Your task to perform on an android device: change the clock display to analog Image 0: 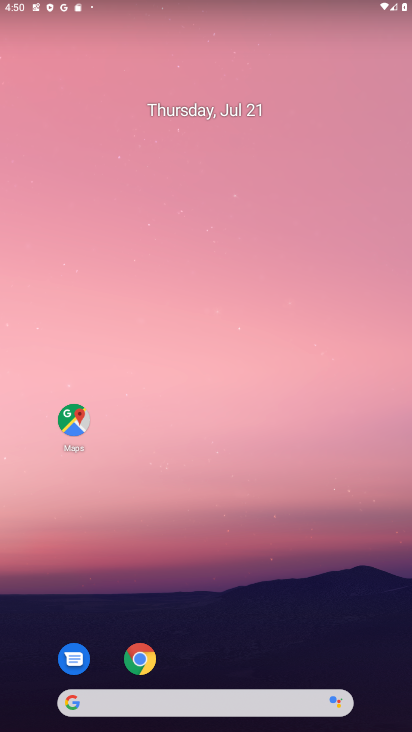
Step 0: drag from (239, 576) to (243, 171)
Your task to perform on an android device: change the clock display to analog Image 1: 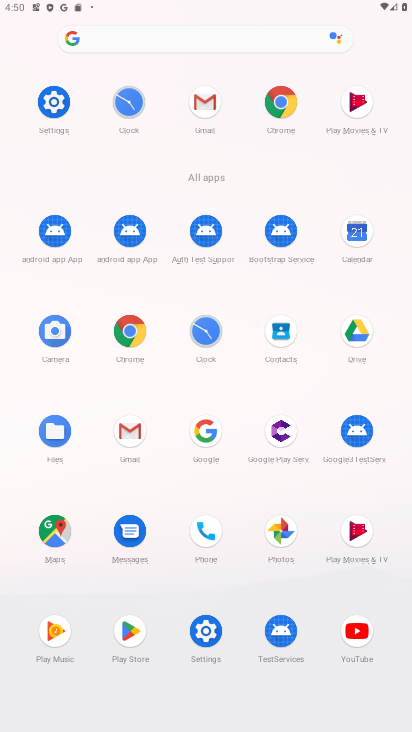
Step 1: click (129, 98)
Your task to perform on an android device: change the clock display to analog Image 2: 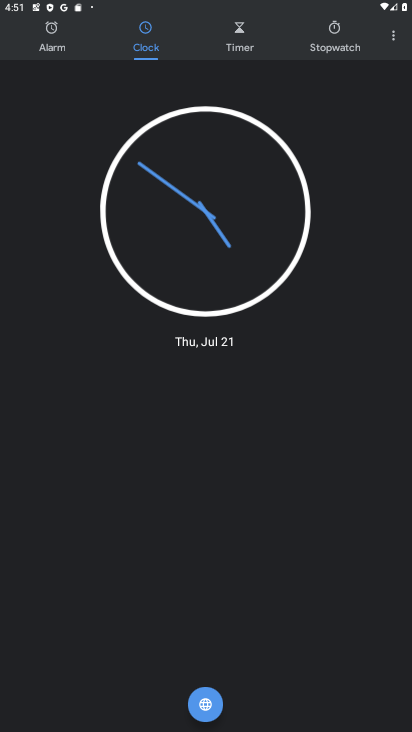
Step 2: click (396, 38)
Your task to perform on an android device: change the clock display to analog Image 3: 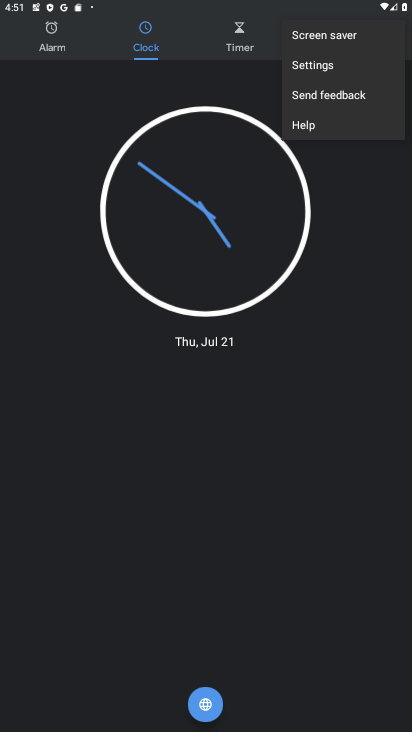
Step 3: click (319, 65)
Your task to perform on an android device: change the clock display to analog Image 4: 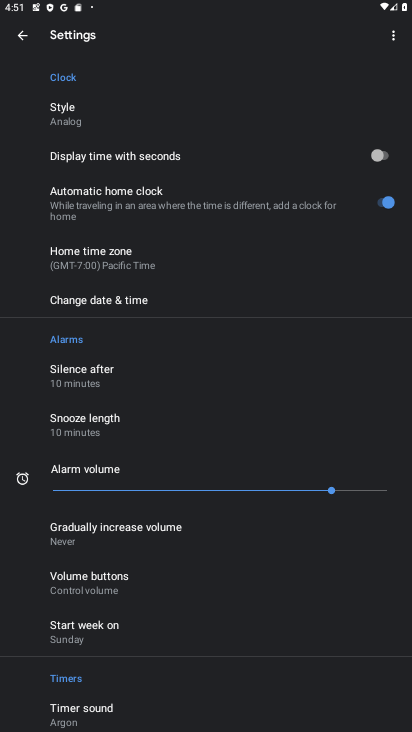
Step 4: click (78, 116)
Your task to perform on an android device: change the clock display to analog Image 5: 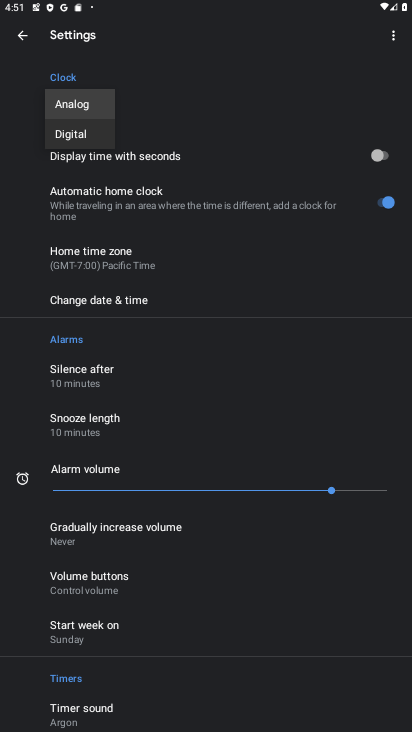
Step 5: click (85, 104)
Your task to perform on an android device: change the clock display to analog Image 6: 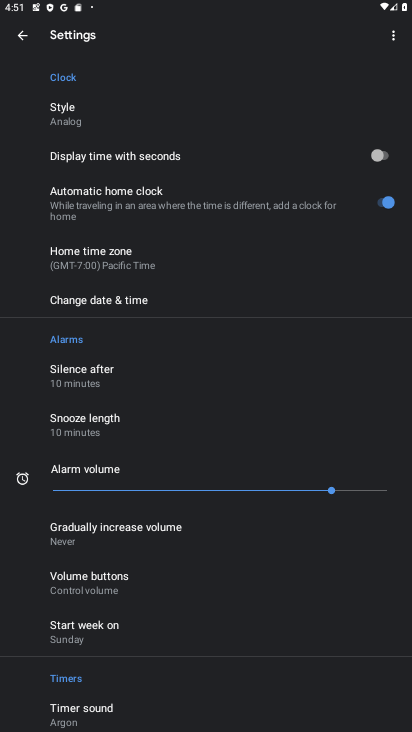
Step 6: task complete